Your task to perform on an android device: toggle pop-ups in chrome Image 0: 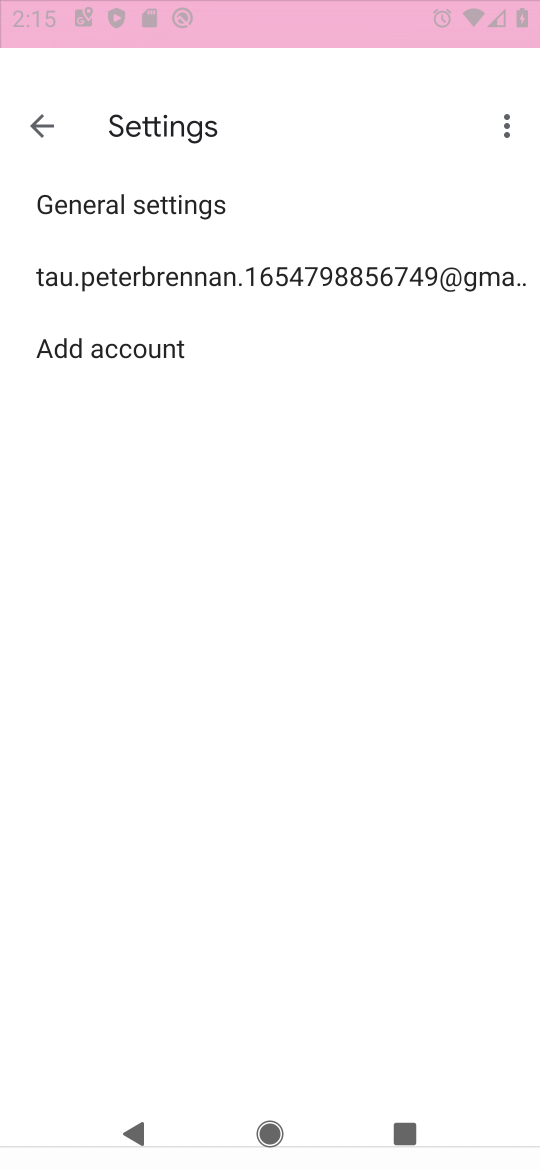
Step 0: press home button
Your task to perform on an android device: toggle pop-ups in chrome Image 1: 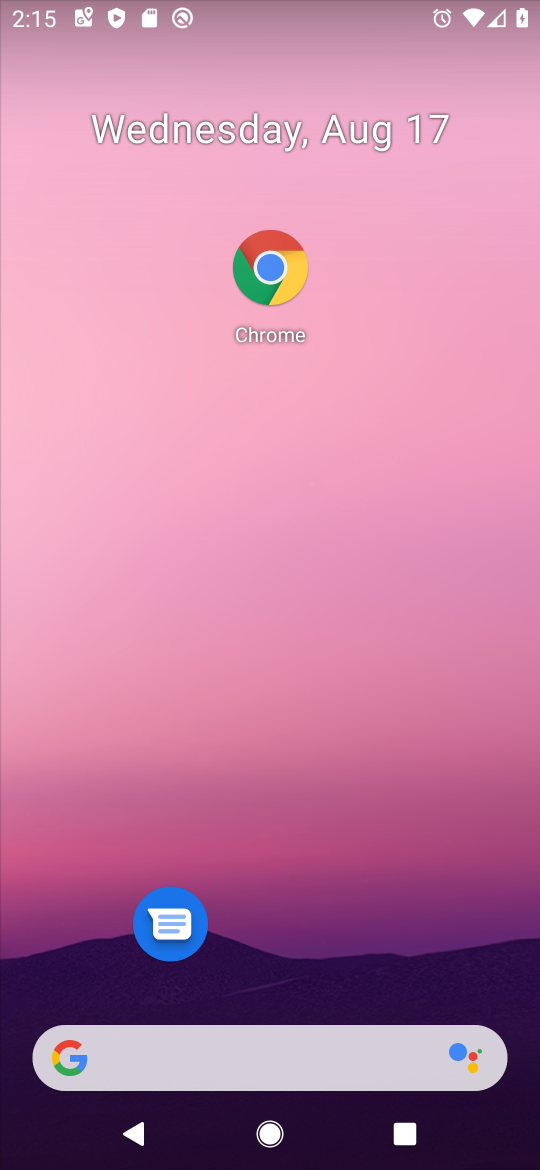
Step 1: drag from (263, 1009) to (118, 39)
Your task to perform on an android device: toggle pop-ups in chrome Image 2: 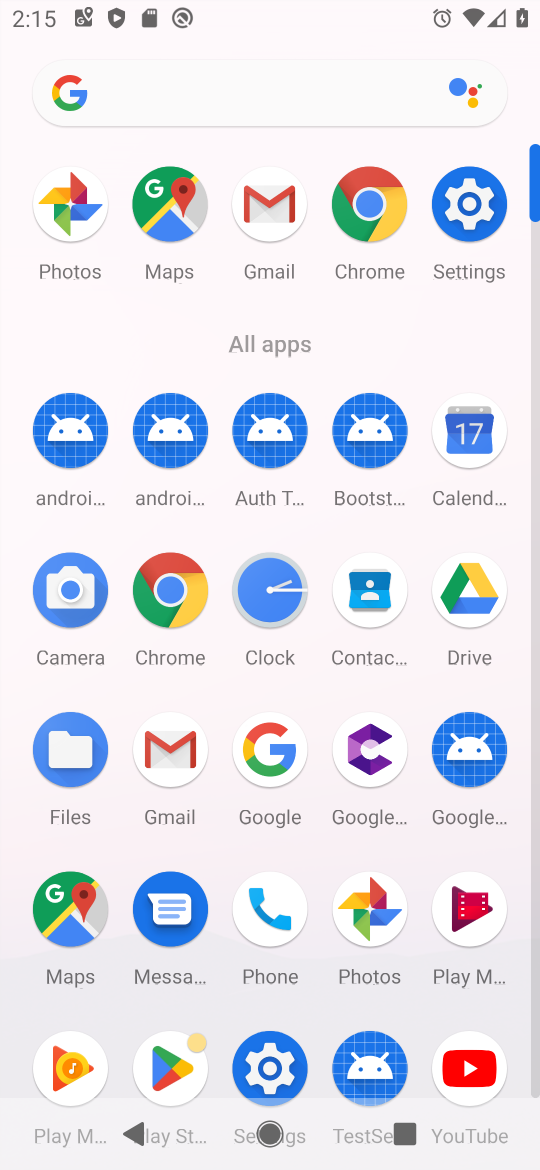
Step 2: click (181, 572)
Your task to perform on an android device: toggle pop-ups in chrome Image 3: 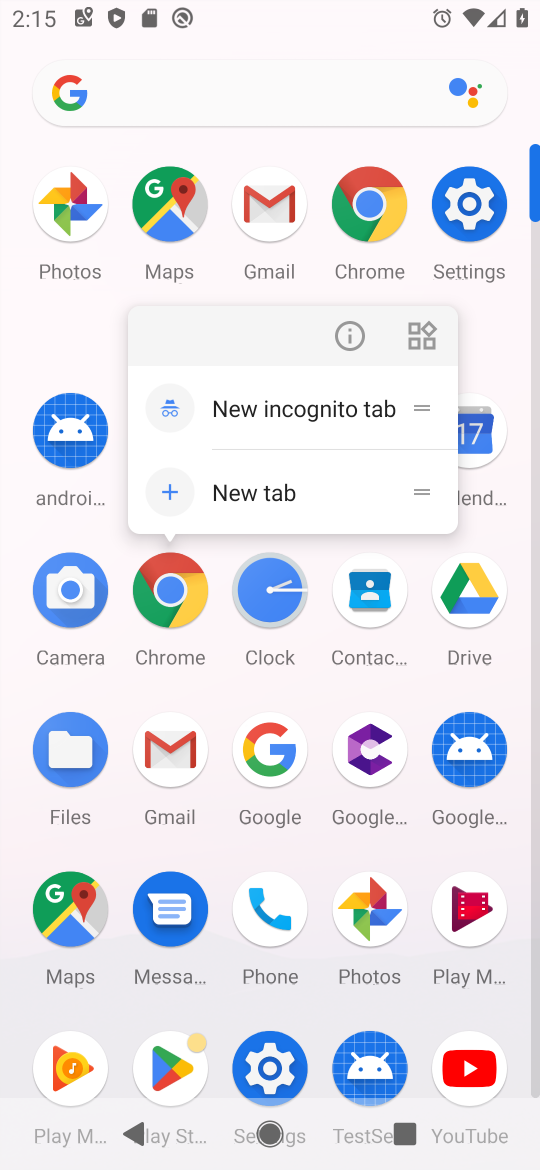
Step 3: click (184, 591)
Your task to perform on an android device: toggle pop-ups in chrome Image 4: 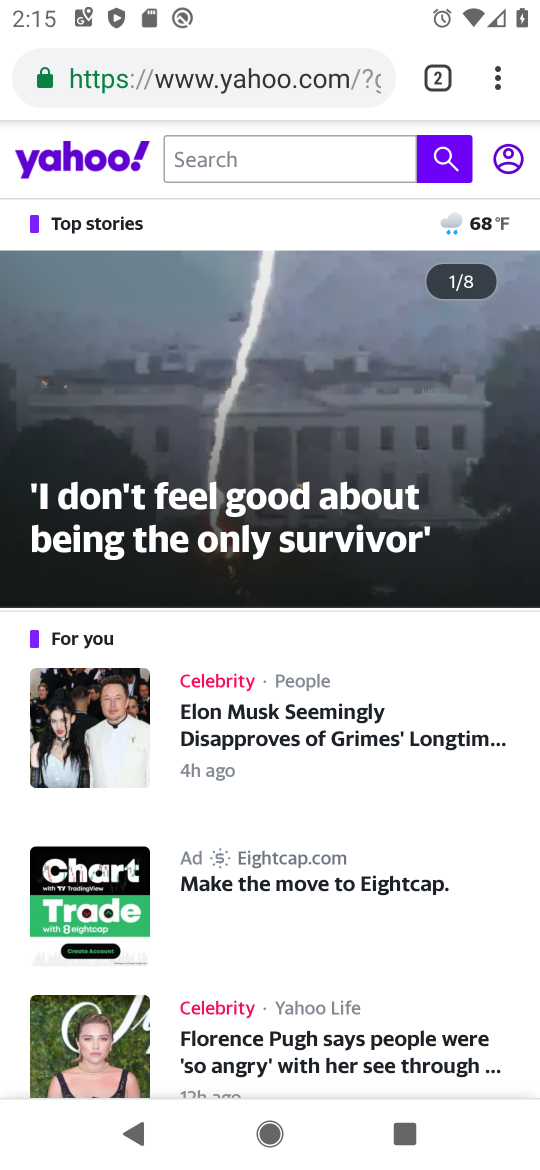
Step 4: drag from (499, 87) to (224, 982)
Your task to perform on an android device: toggle pop-ups in chrome Image 5: 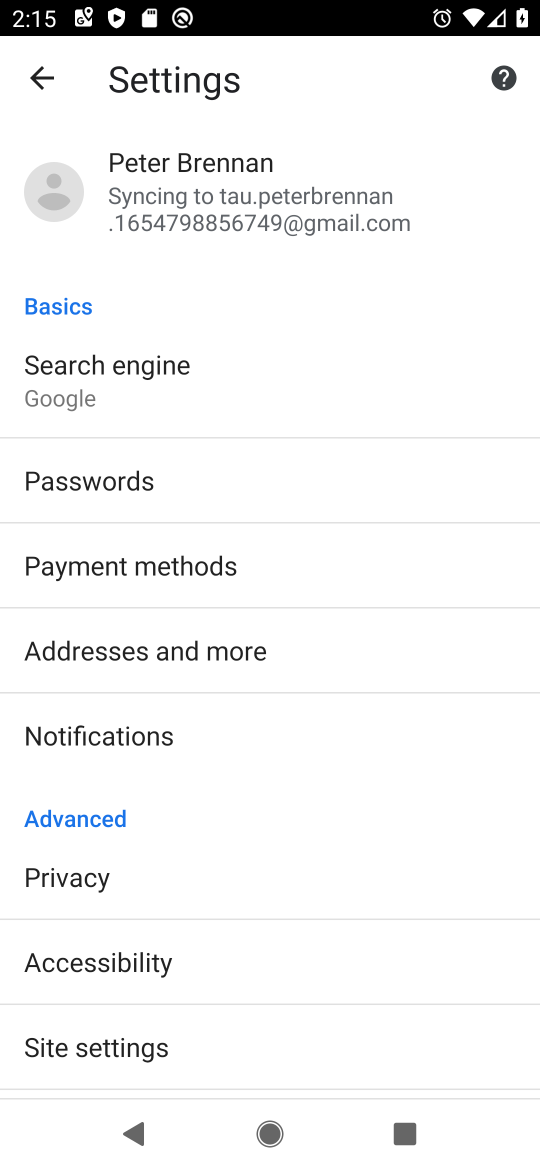
Step 5: click (86, 1046)
Your task to perform on an android device: toggle pop-ups in chrome Image 6: 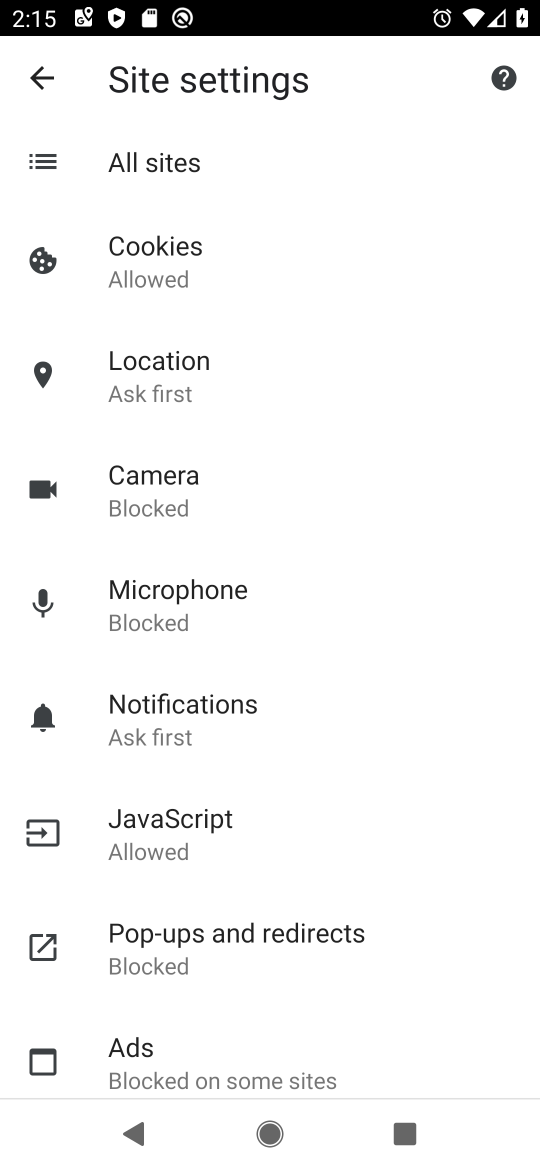
Step 6: click (148, 932)
Your task to perform on an android device: toggle pop-ups in chrome Image 7: 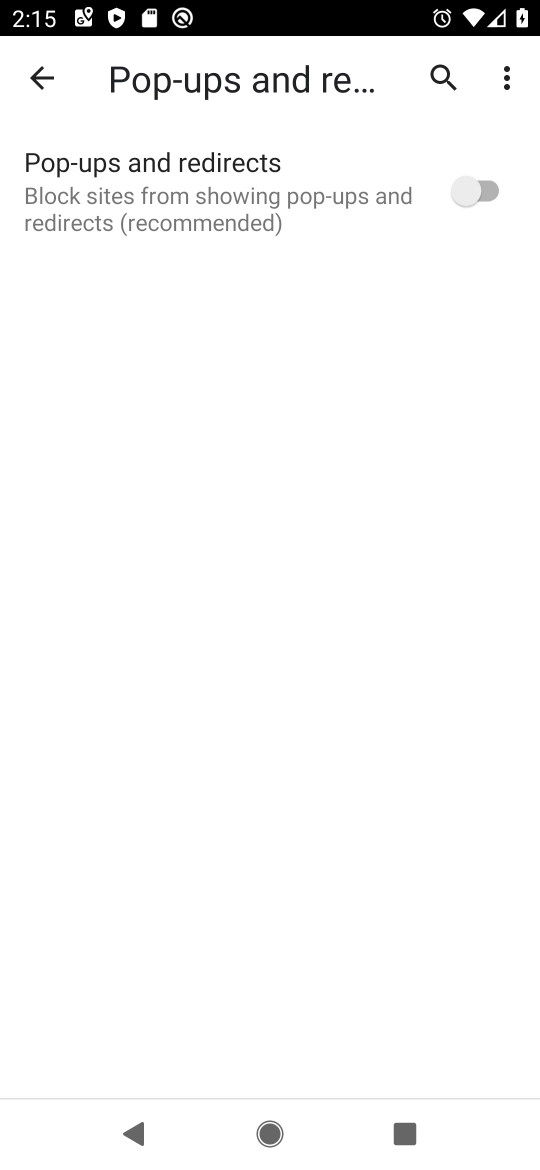
Step 7: click (482, 193)
Your task to perform on an android device: toggle pop-ups in chrome Image 8: 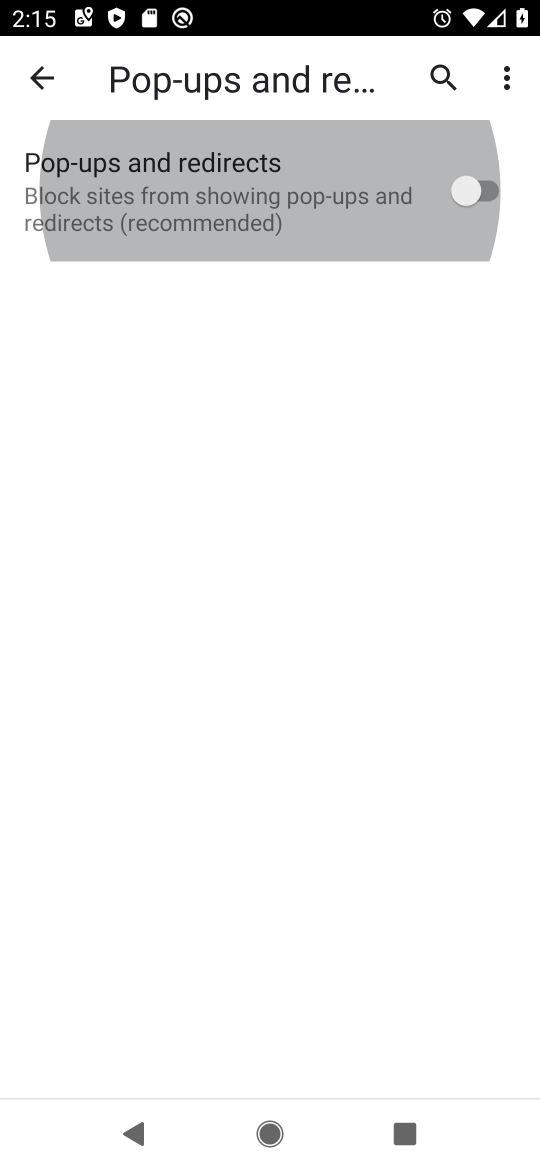
Step 8: task complete